Your task to perform on an android device: toggle sleep mode Image 0: 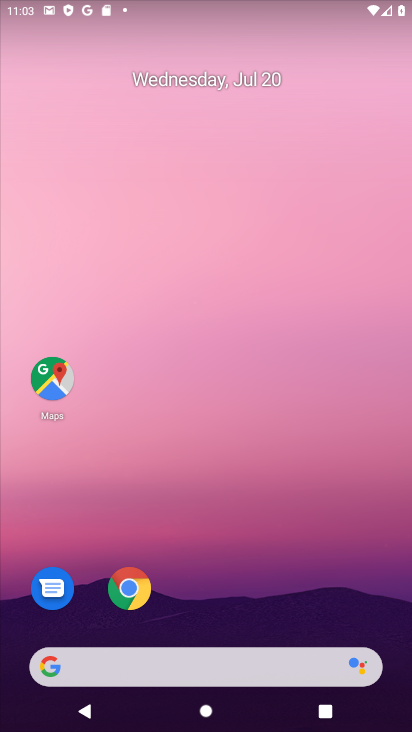
Step 0: drag from (192, 548) to (206, 84)
Your task to perform on an android device: toggle sleep mode Image 1: 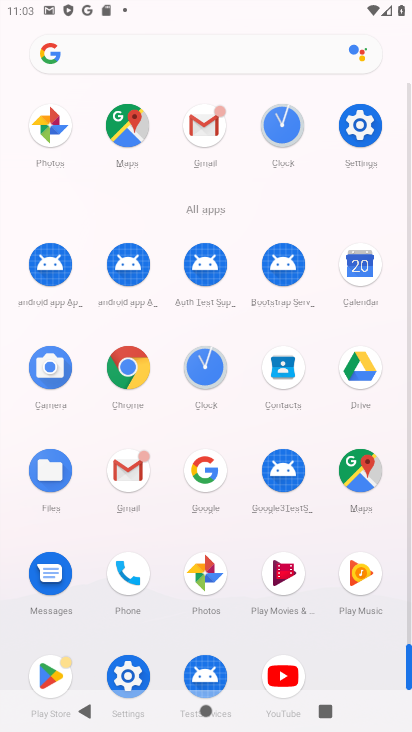
Step 1: click (371, 128)
Your task to perform on an android device: toggle sleep mode Image 2: 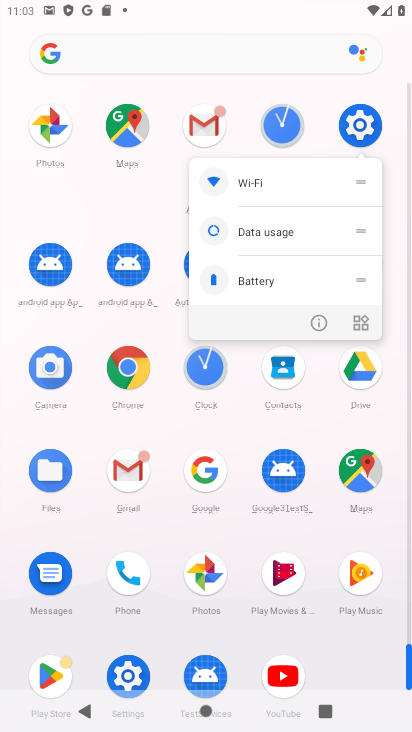
Step 2: click (320, 325)
Your task to perform on an android device: toggle sleep mode Image 3: 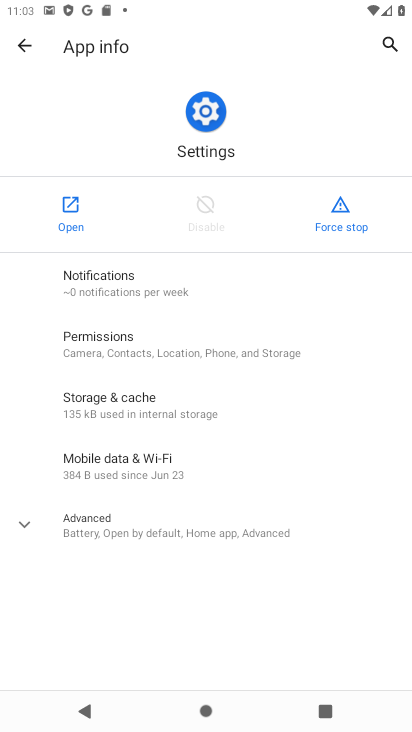
Step 3: click (66, 201)
Your task to perform on an android device: toggle sleep mode Image 4: 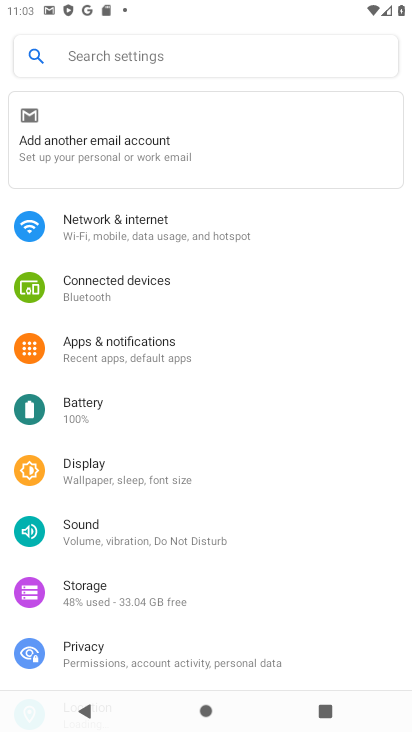
Step 4: click (120, 477)
Your task to perform on an android device: toggle sleep mode Image 5: 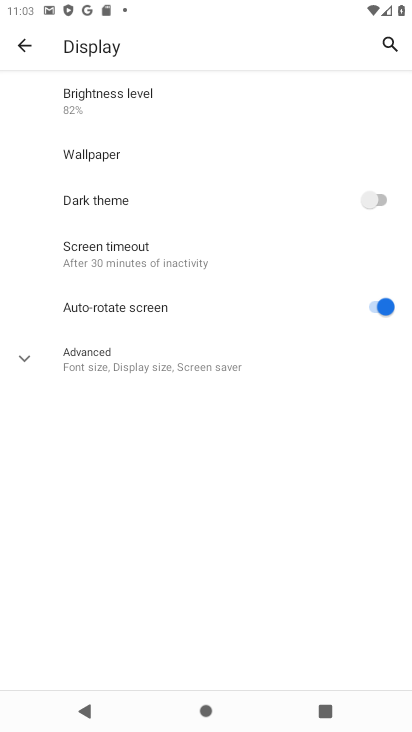
Step 5: click (120, 254)
Your task to perform on an android device: toggle sleep mode Image 6: 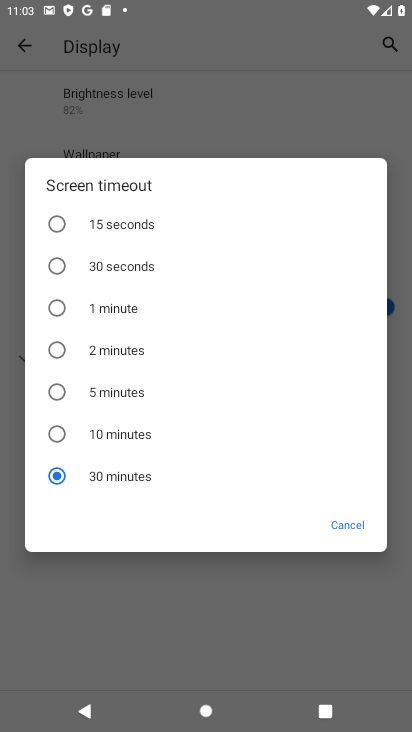
Step 6: click (53, 306)
Your task to perform on an android device: toggle sleep mode Image 7: 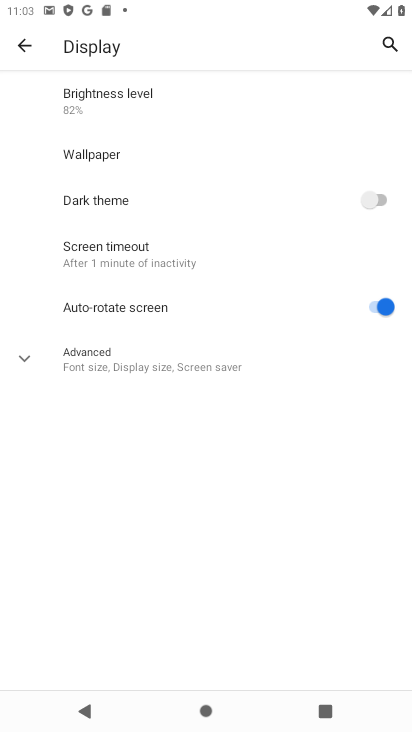
Step 7: task complete